Your task to perform on an android device: stop showing notifications on the lock screen Image 0: 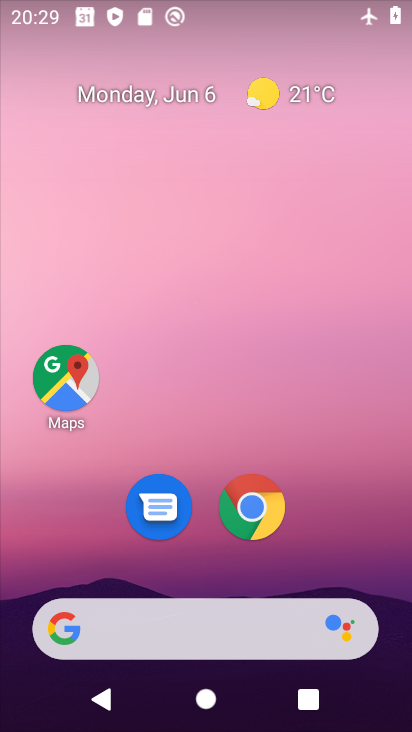
Step 0: drag from (194, 565) to (210, 181)
Your task to perform on an android device: stop showing notifications on the lock screen Image 1: 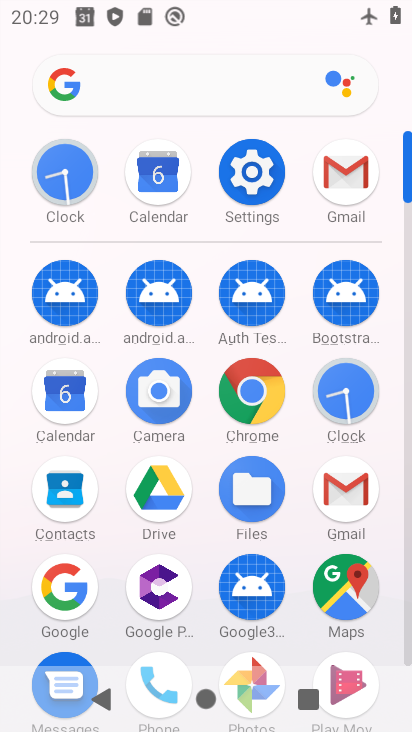
Step 1: click (245, 177)
Your task to perform on an android device: stop showing notifications on the lock screen Image 2: 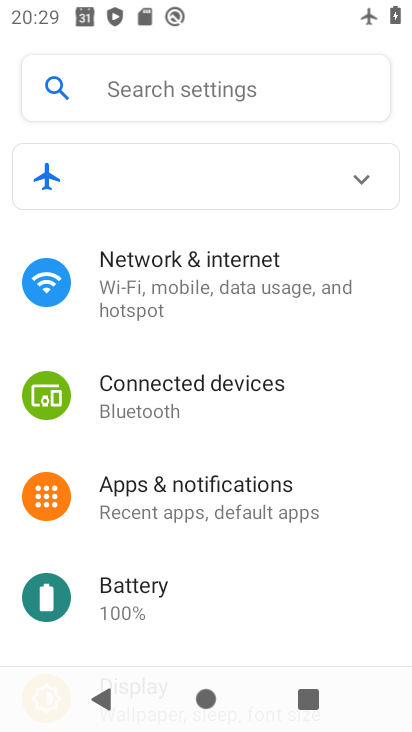
Step 2: drag from (234, 586) to (155, 210)
Your task to perform on an android device: stop showing notifications on the lock screen Image 3: 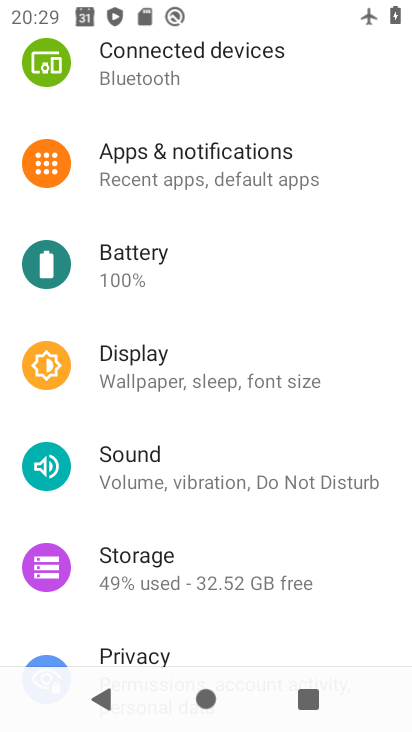
Step 3: click (180, 180)
Your task to perform on an android device: stop showing notifications on the lock screen Image 4: 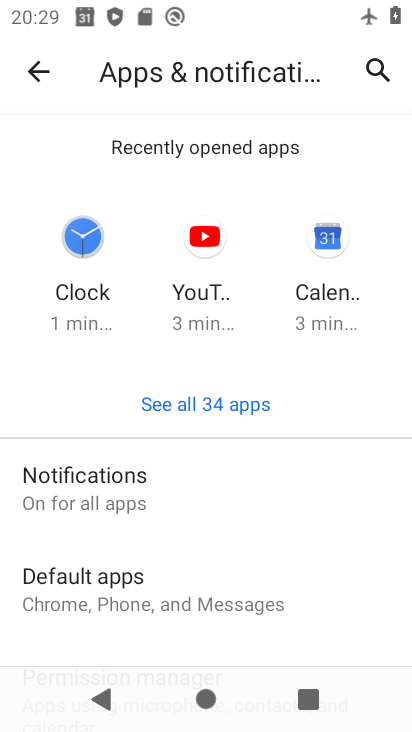
Step 4: drag from (149, 586) to (163, 215)
Your task to perform on an android device: stop showing notifications on the lock screen Image 5: 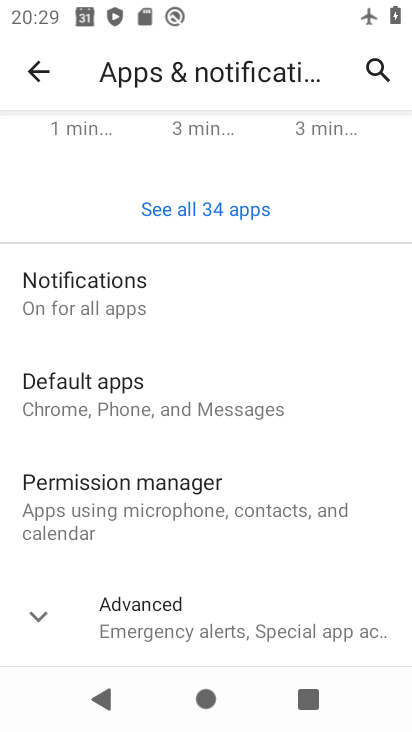
Step 5: click (81, 292)
Your task to perform on an android device: stop showing notifications on the lock screen Image 6: 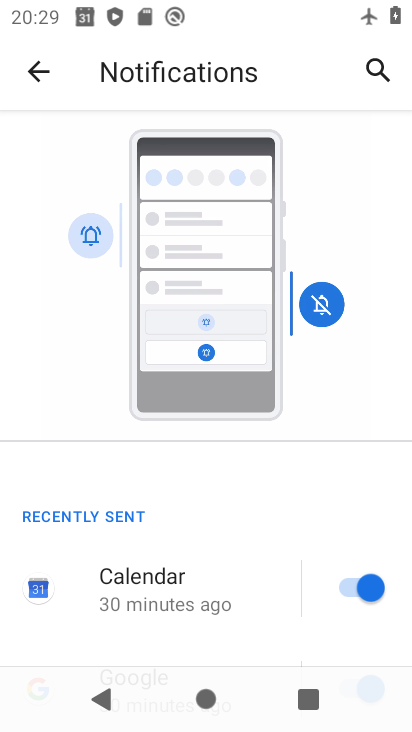
Step 6: drag from (226, 545) to (223, 262)
Your task to perform on an android device: stop showing notifications on the lock screen Image 7: 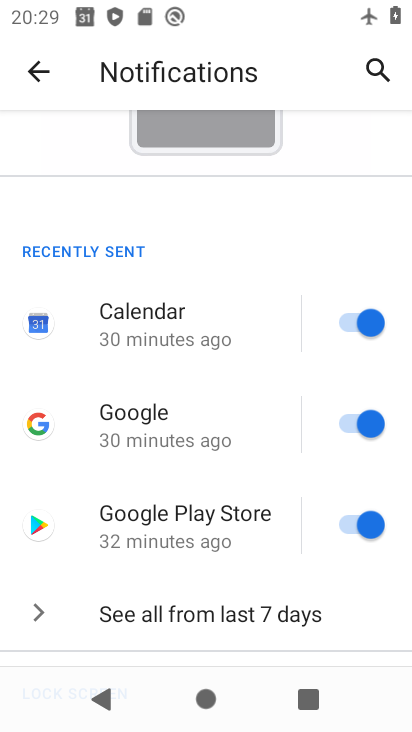
Step 7: drag from (198, 554) to (225, 213)
Your task to perform on an android device: stop showing notifications on the lock screen Image 8: 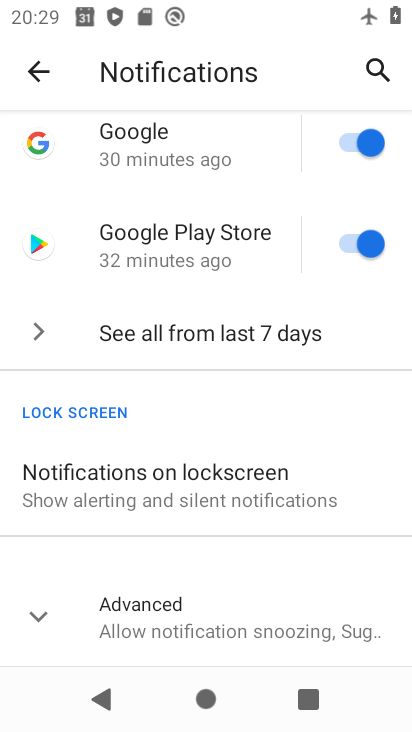
Step 8: click (172, 486)
Your task to perform on an android device: stop showing notifications on the lock screen Image 9: 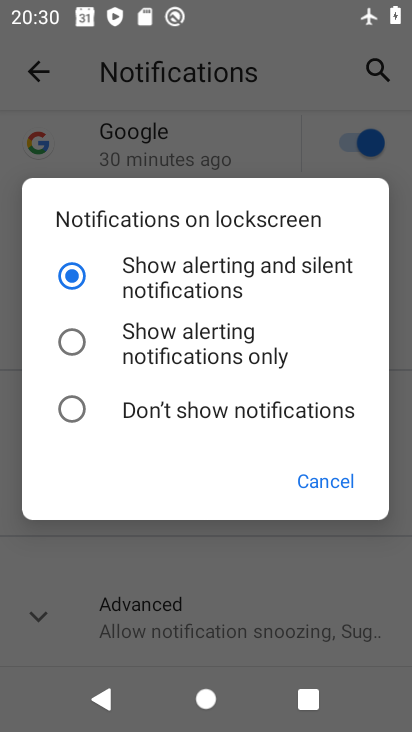
Step 9: click (67, 404)
Your task to perform on an android device: stop showing notifications on the lock screen Image 10: 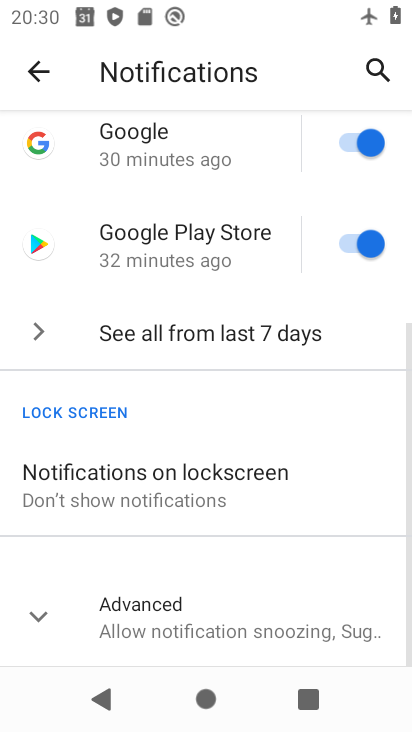
Step 10: task complete